Your task to perform on an android device: turn pop-ups off in chrome Image 0: 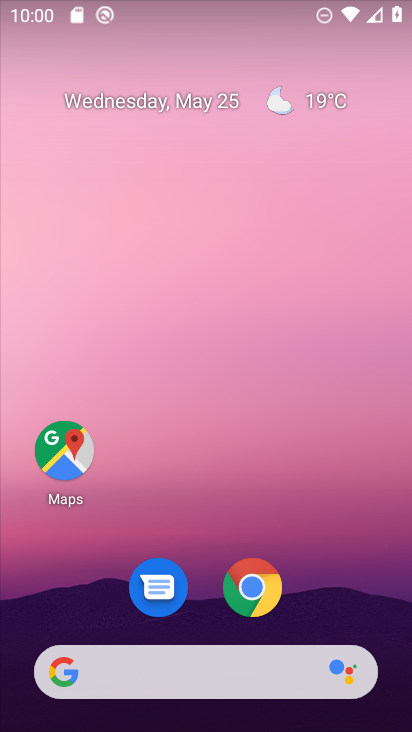
Step 0: click (256, 592)
Your task to perform on an android device: turn pop-ups off in chrome Image 1: 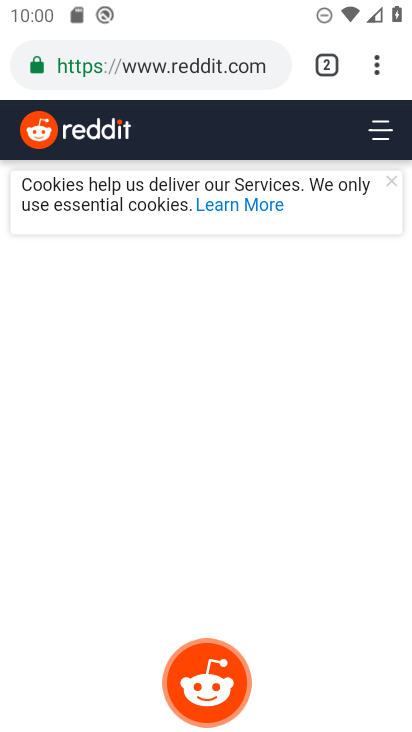
Step 1: click (373, 68)
Your task to perform on an android device: turn pop-ups off in chrome Image 2: 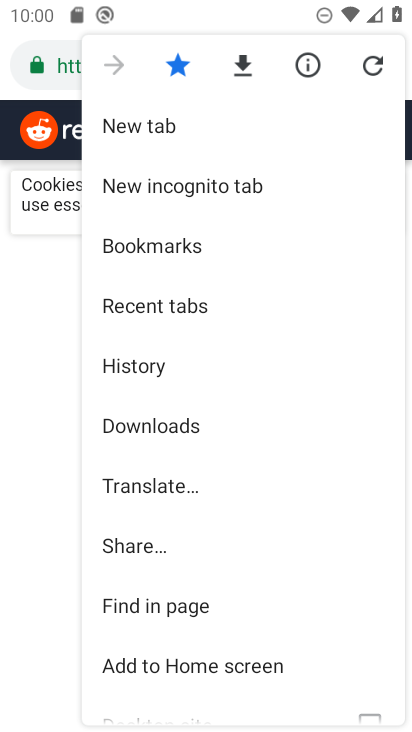
Step 2: drag from (253, 627) to (287, 199)
Your task to perform on an android device: turn pop-ups off in chrome Image 3: 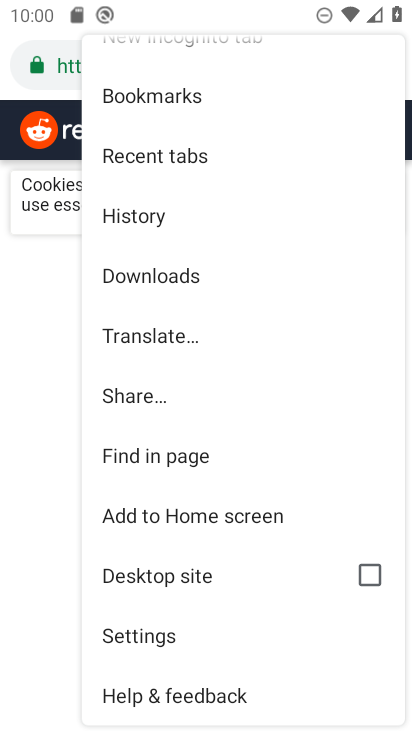
Step 3: click (144, 630)
Your task to perform on an android device: turn pop-ups off in chrome Image 4: 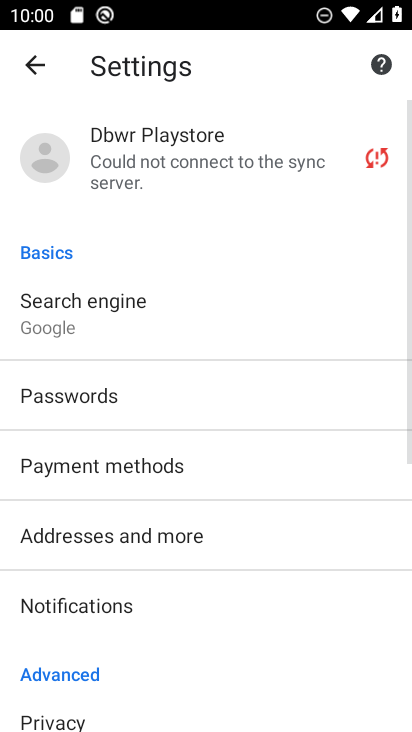
Step 4: drag from (267, 637) to (201, 110)
Your task to perform on an android device: turn pop-ups off in chrome Image 5: 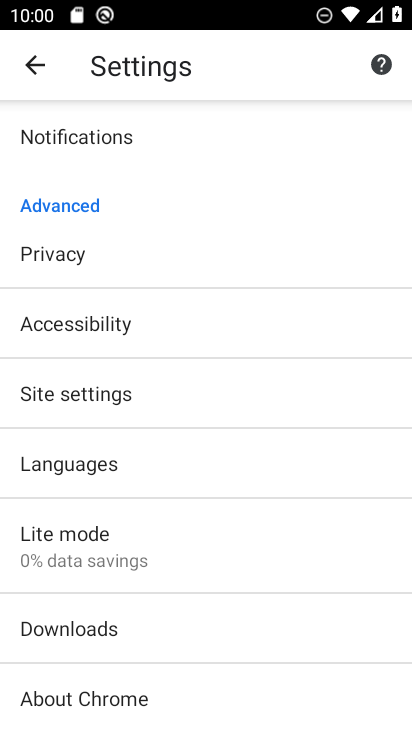
Step 5: click (88, 382)
Your task to perform on an android device: turn pop-ups off in chrome Image 6: 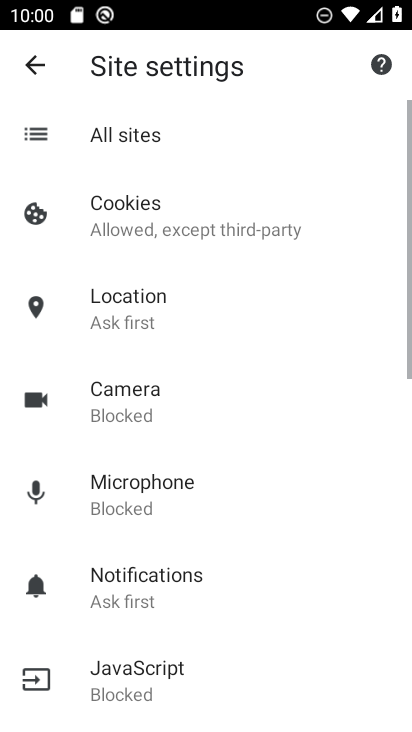
Step 6: drag from (246, 639) to (281, 215)
Your task to perform on an android device: turn pop-ups off in chrome Image 7: 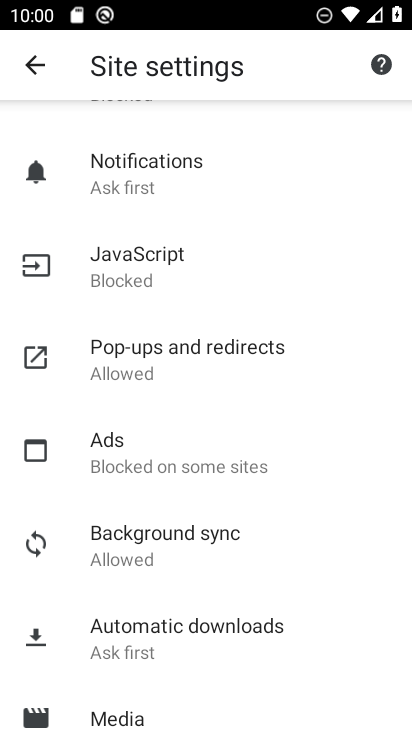
Step 7: click (138, 353)
Your task to perform on an android device: turn pop-ups off in chrome Image 8: 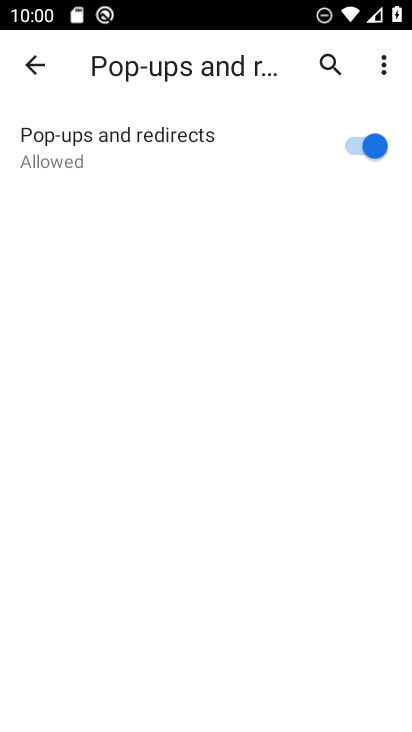
Step 8: click (350, 144)
Your task to perform on an android device: turn pop-ups off in chrome Image 9: 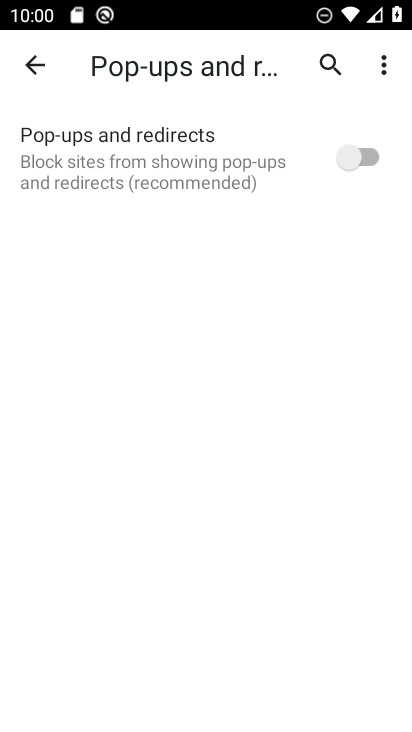
Step 9: task complete